Your task to perform on an android device: set the timer Image 0: 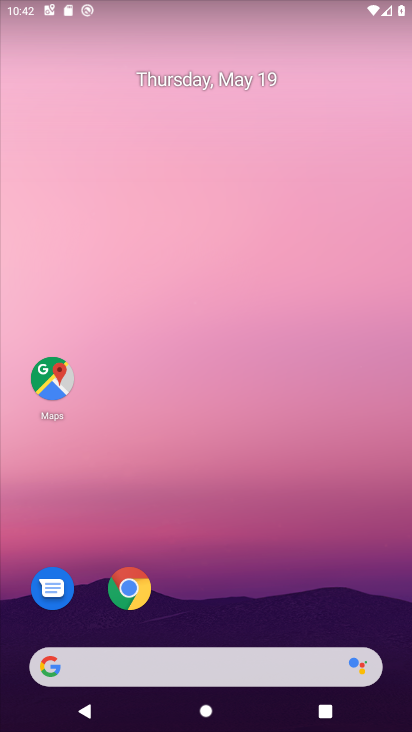
Step 0: drag from (241, 365) to (206, 14)
Your task to perform on an android device: set the timer Image 1: 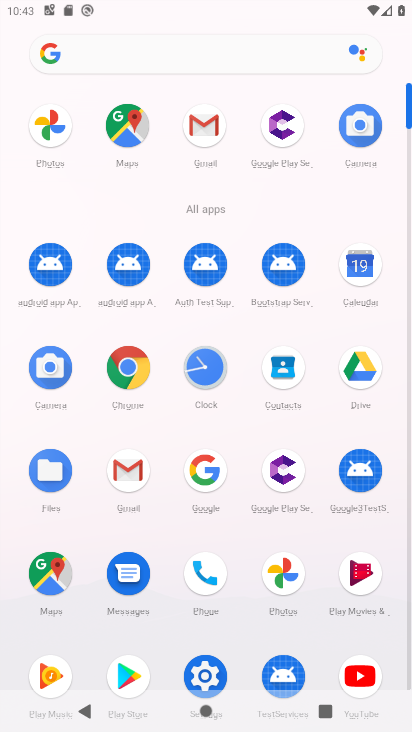
Step 1: click (199, 375)
Your task to perform on an android device: set the timer Image 2: 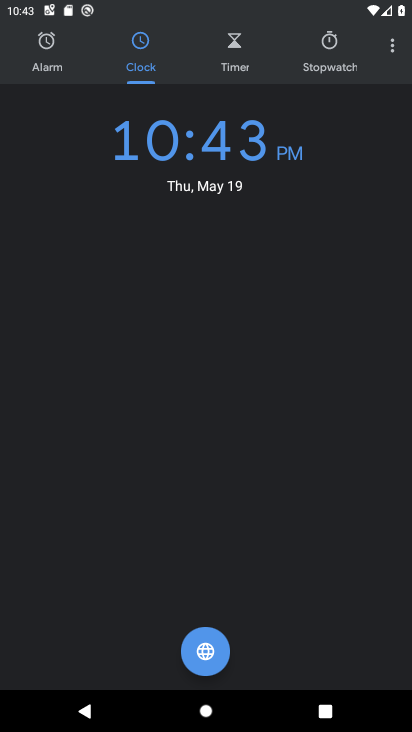
Step 2: click (235, 46)
Your task to perform on an android device: set the timer Image 3: 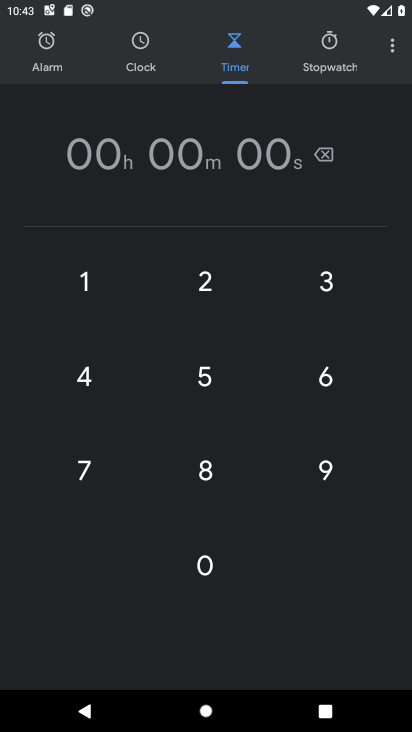
Step 3: click (93, 275)
Your task to perform on an android device: set the timer Image 4: 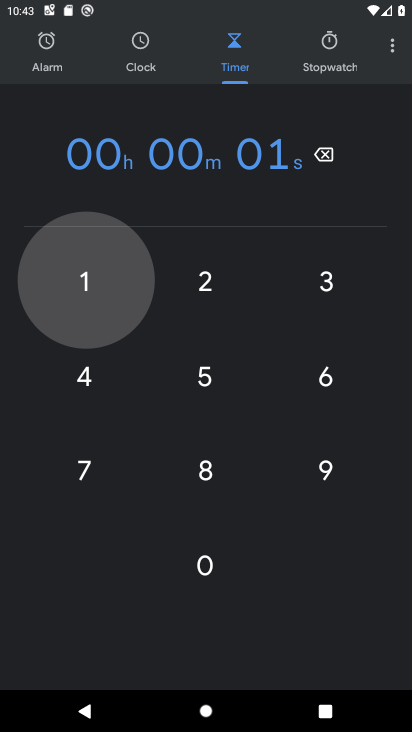
Step 4: click (94, 276)
Your task to perform on an android device: set the timer Image 5: 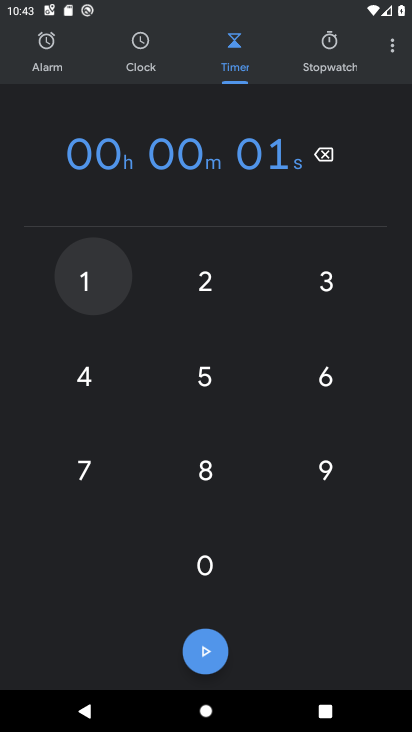
Step 5: click (93, 277)
Your task to perform on an android device: set the timer Image 6: 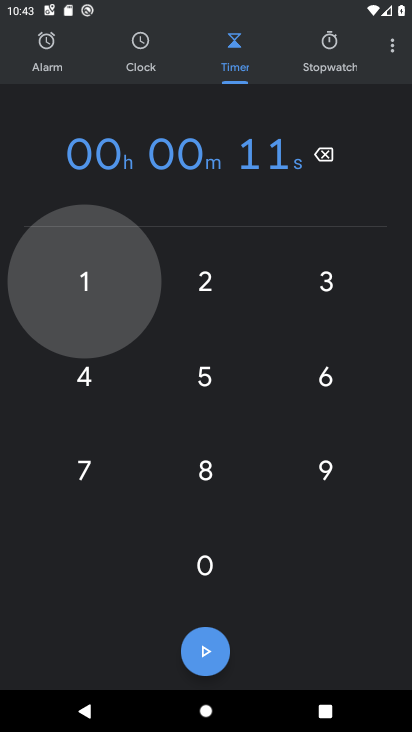
Step 6: click (93, 275)
Your task to perform on an android device: set the timer Image 7: 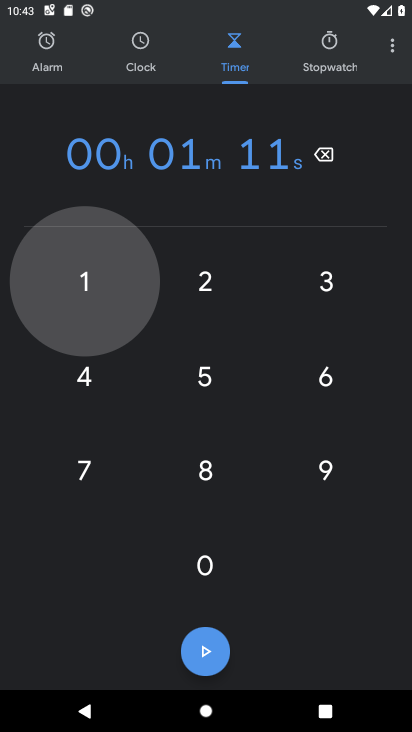
Step 7: click (93, 275)
Your task to perform on an android device: set the timer Image 8: 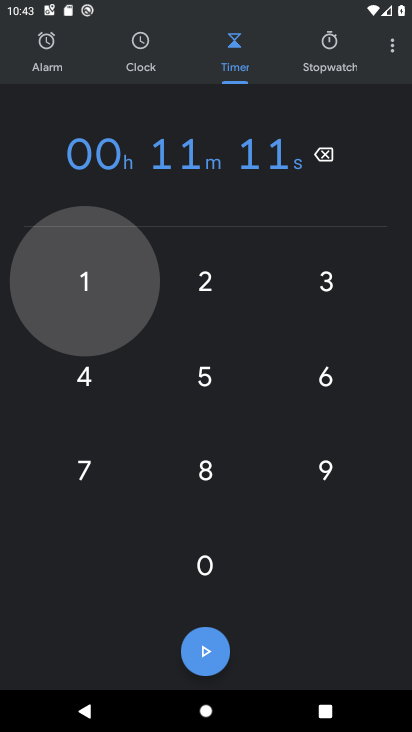
Step 8: click (93, 275)
Your task to perform on an android device: set the timer Image 9: 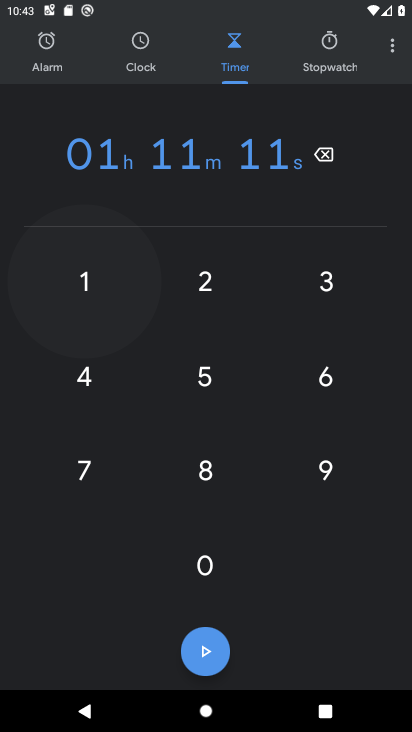
Step 9: click (94, 274)
Your task to perform on an android device: set the timer Image 10: 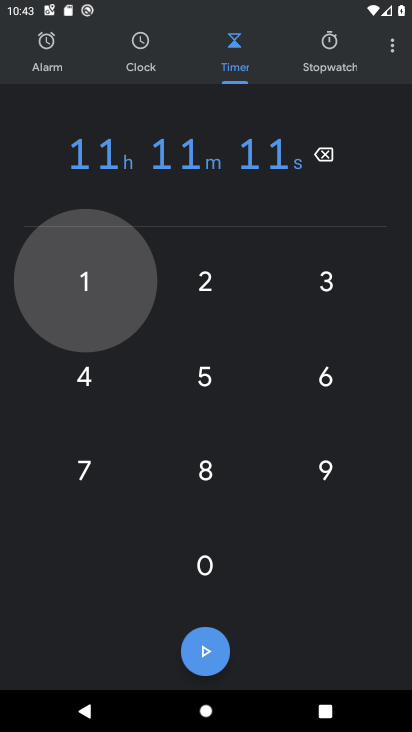
Step 10: click (94, 274)
Your task to perform on an android device: set the timer Image 11: 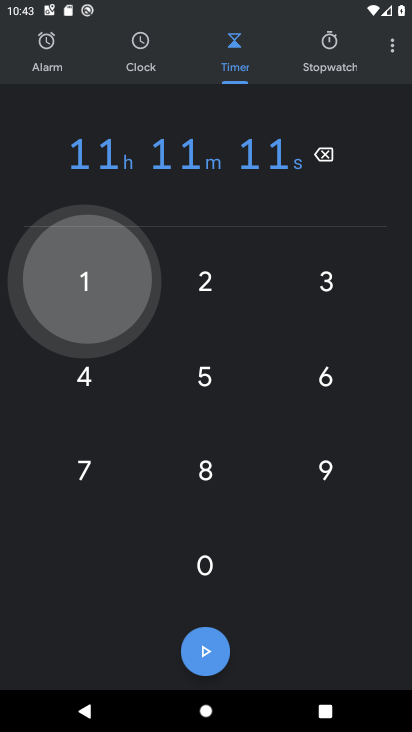
Step 11: click (95, 272)
Your task to perform on an android device: set the timer Image 12: 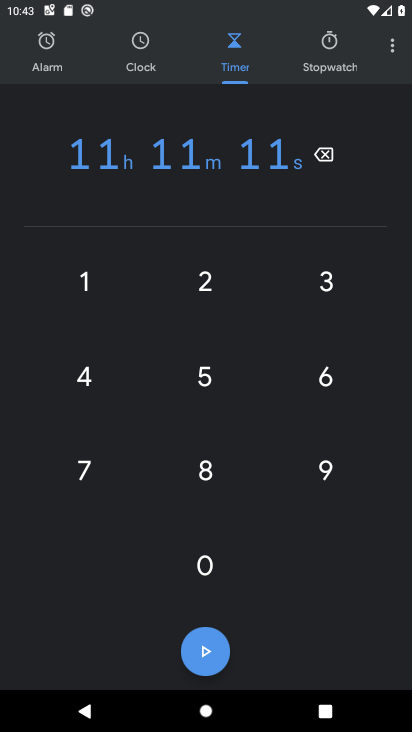
Step 12: click (201, 644)
Your task to perform on an android device: set the timer Image 13: 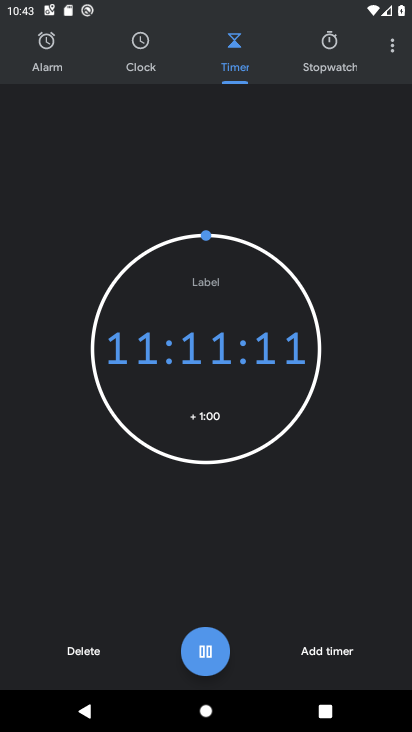
Step 13: task complete